Your task to perform on an android device: Check the weather Image 0: 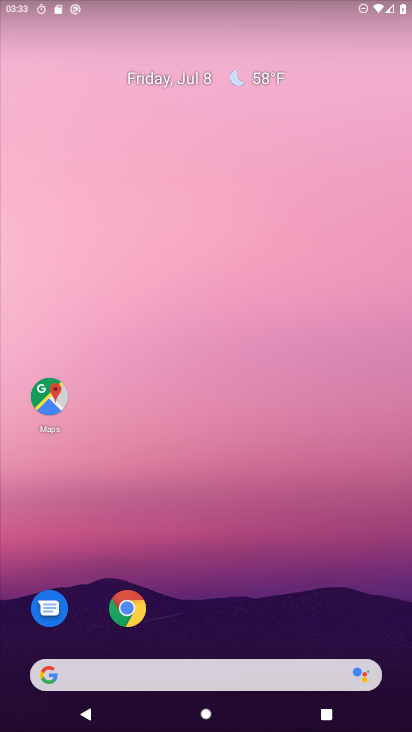
Step 0: drag from (248, 673) to (235, 110)
Your task to perform on an android device: Check the weather Image 1: 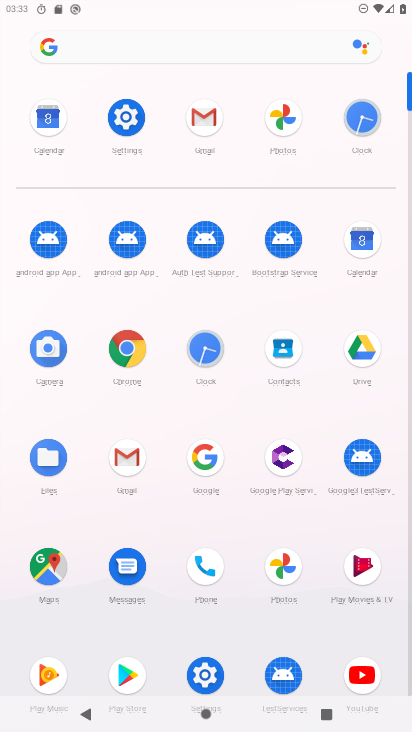
Step 1: click (202, 464)
Your task to perform on an android device: Check the weather Image 2: 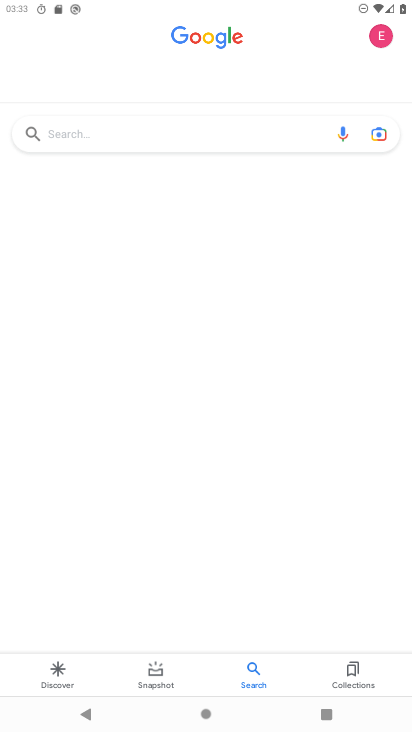
Step 2: click (219, 133)
Your task to perform on an android device: Check the weather Image 3: 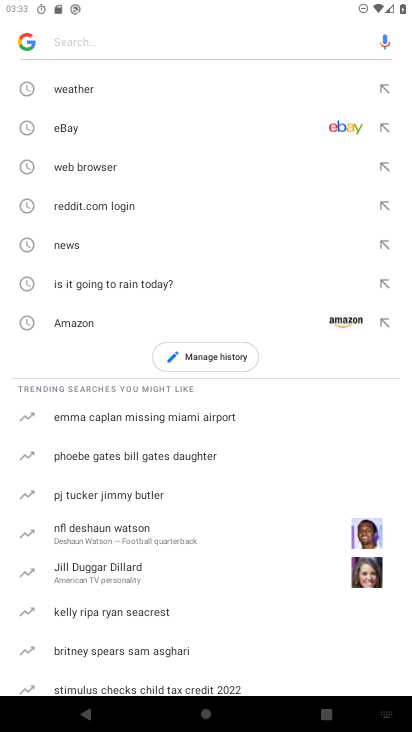
Step 3: click (75, 89)
Your task to perform on an android device: Check the weather Image 4: 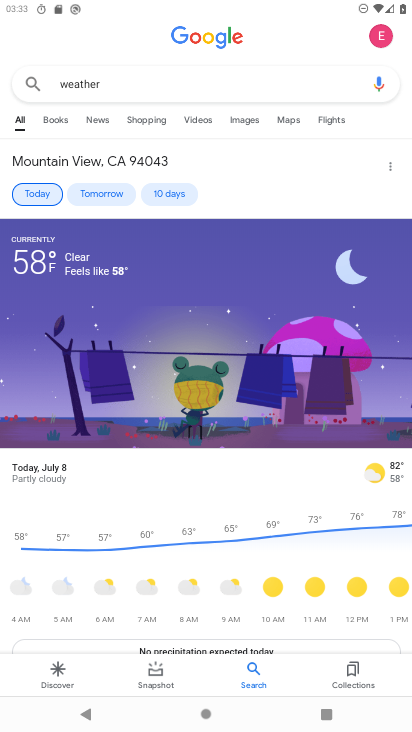
Step 4: task complete